Your task to perform on an android device: Is it going to rain tomorrow? Image 0: 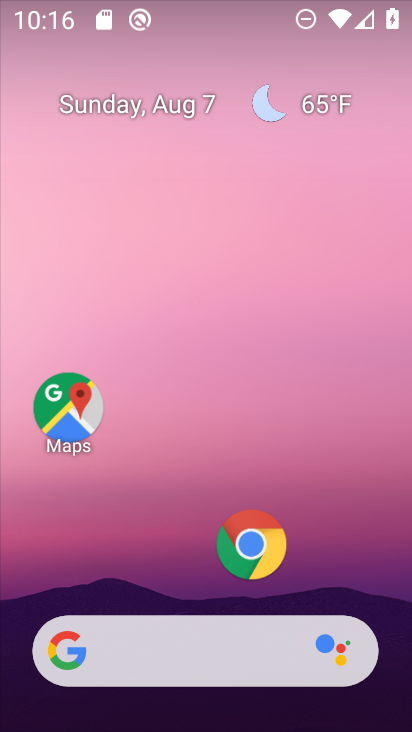
Step 0: drag from (203, 611) to (293, 28)
Your task to perform on an android device: Is it going to rain tomorrow? Image 1: 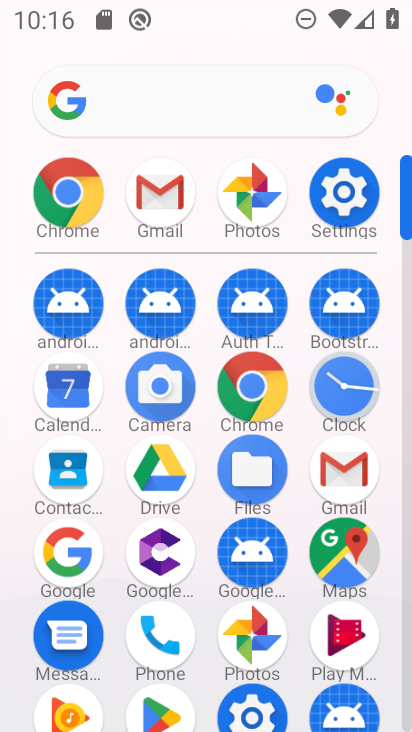
Step 1: click (71, 543)
Your task to perform on an android device: Is it going to rain tomorrow? Image 2: 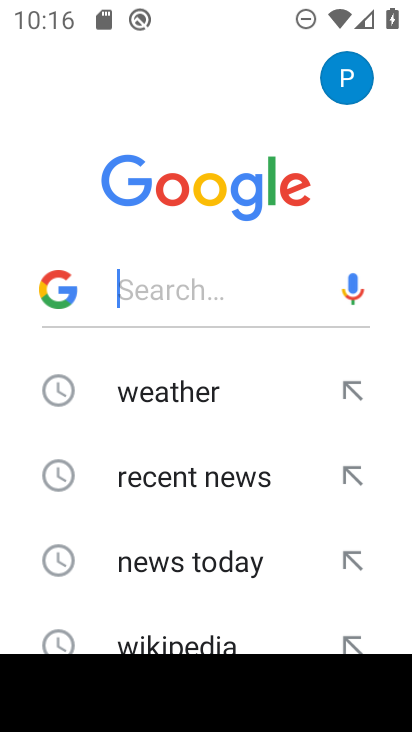
Step 2: click (120, 386)
Your task to perform on an android device: Is it going to rain tomorrow? Image 3: 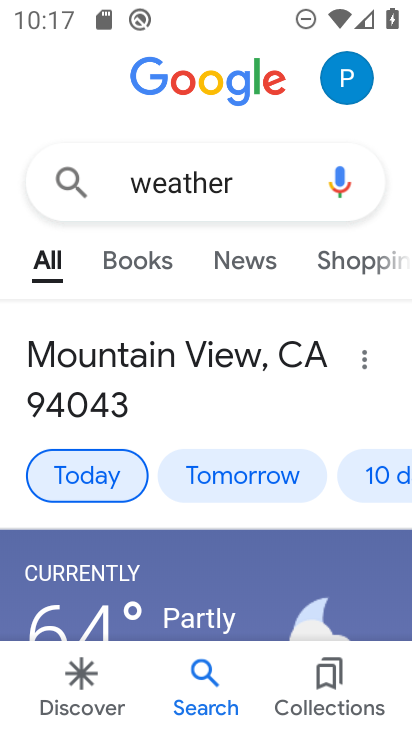
Step 3: click (209, 481)
Your task to perform on an android device: Is it going to rain tomorrow? Image 4: 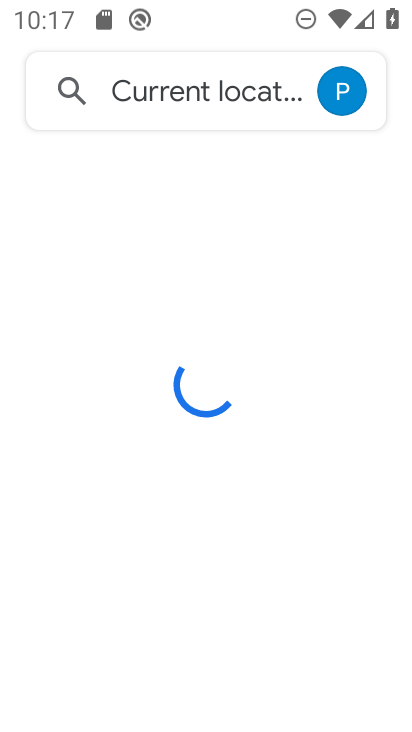
Step 4: task complete